Your task to perform on an android device: Open Google Chrome Image 0: 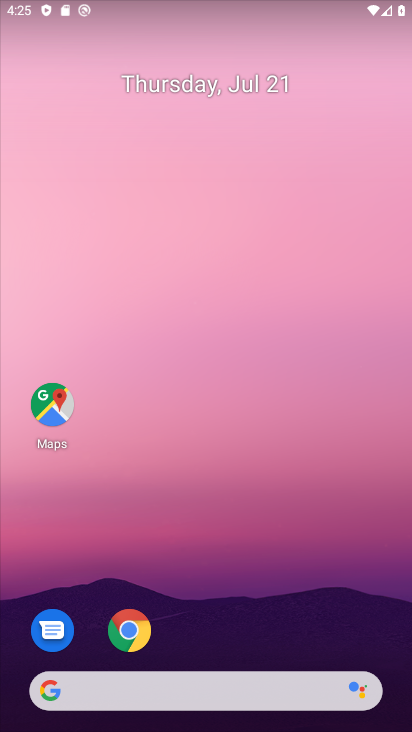
Step 0: click (129, 625)
Your task to perform on an android device: Open Google Chrome Image 1: 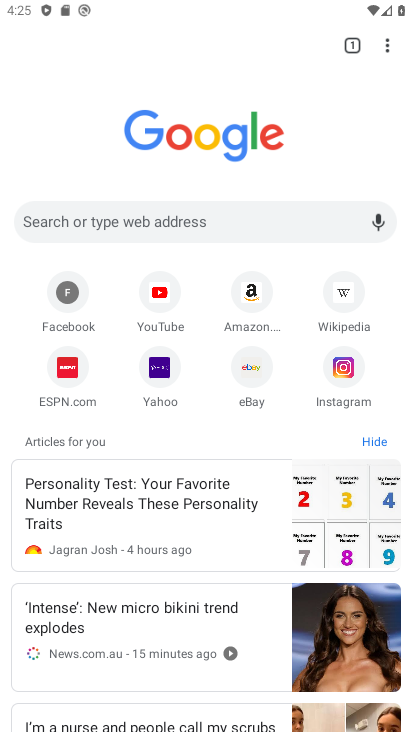
Step 1: task complete